Your task to perform on an android device: show emergency info Image 0: 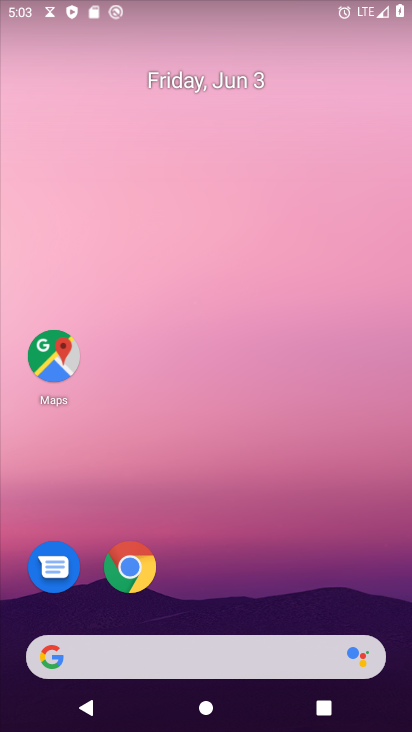
Step 0: drag from (270, 574) to (209, 91)
Your task to perform on an android device: show emergency info Image 1: 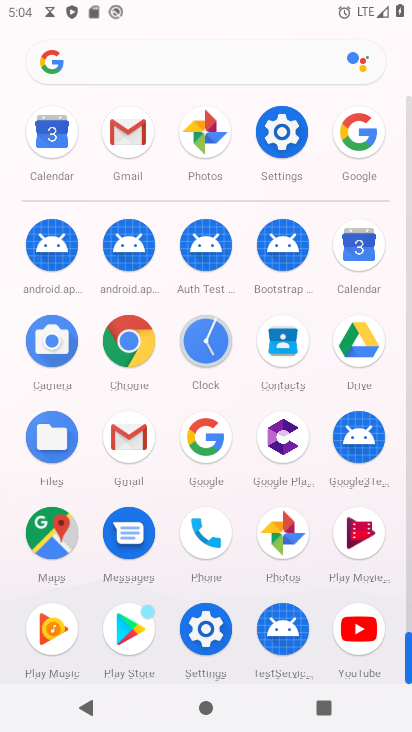
Step 1: click (283, 130)
Your task to perform on an android device: show emergency info Image 2: 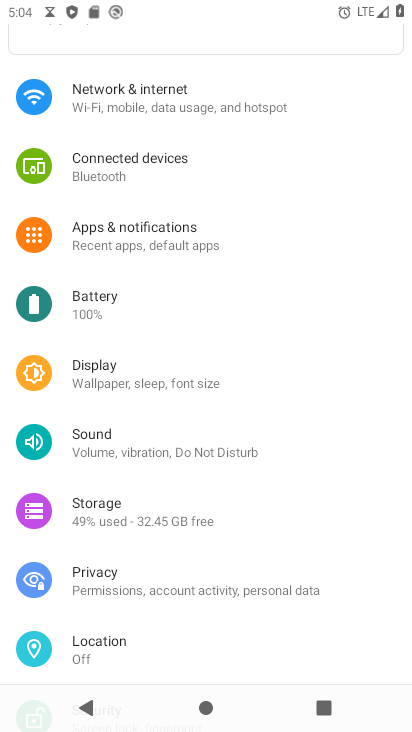
Step 2: drag from (136, 483) to (223, 378)
Your task to perform on an android device: show emergency info Image 3: 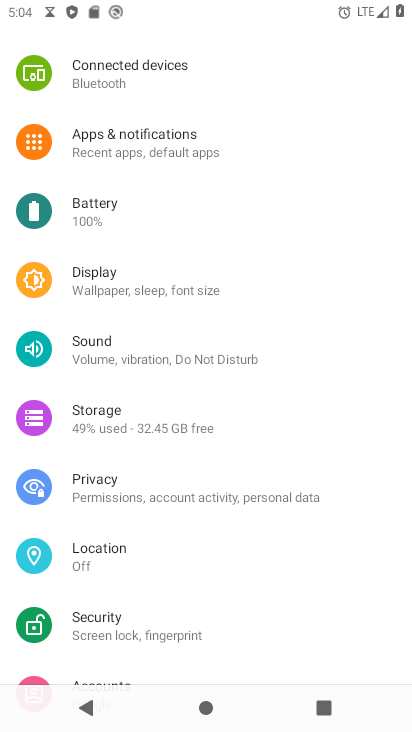
Step 3: drag from (161, 464) to (204, 366)
Your task to perform on an android device: show emergency info Image 4: 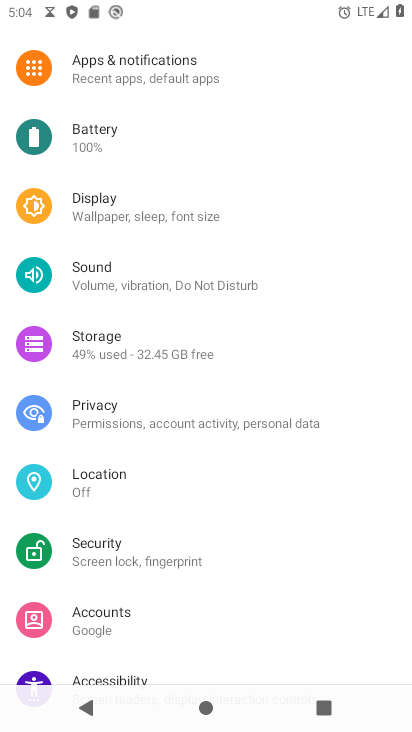
Step 4: drag from (111, 509) to (204, 374)
Your task to perform on an android device: show emergency info Image 5: 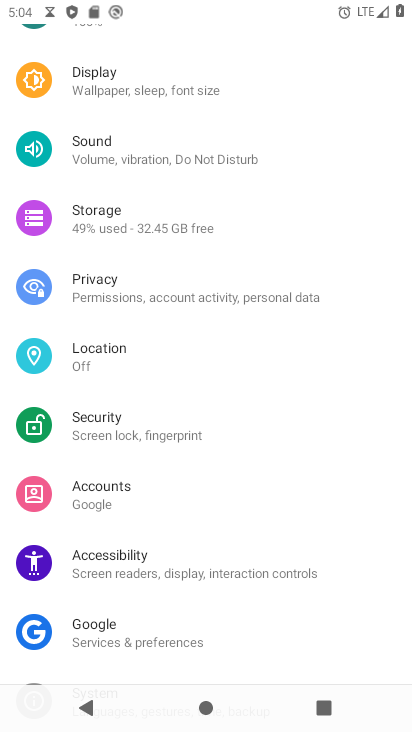
Step 5: drag from (121, 524) to (222, 343)
Your task to perform on an android device: show emergency info Image 6: 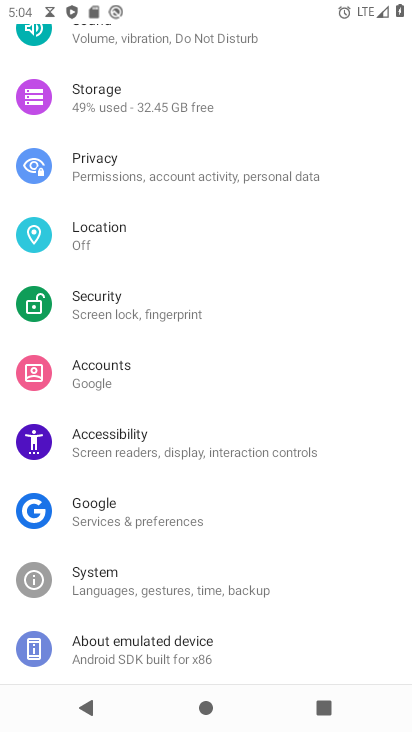
Step 6: click (163, 646)
Your task to perform on an android device: show emergency info Image 7: 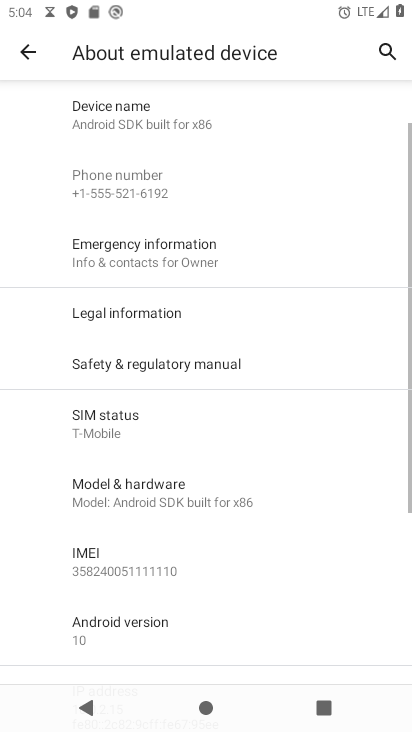
Step 7: click (181, 265)
Your task to perform on an android device: show emergency info Image 8: 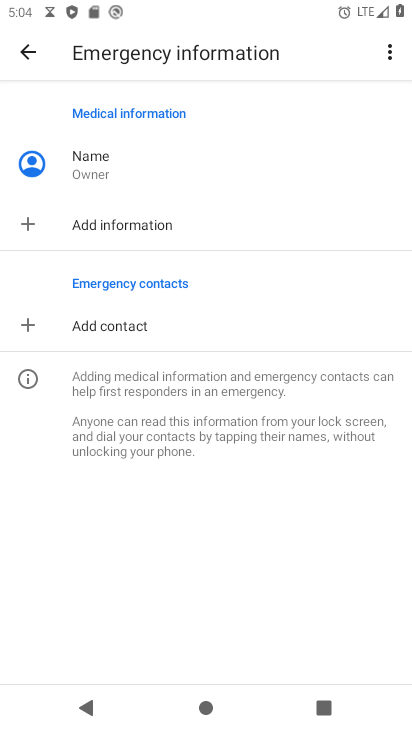
Step 8: task complete